Your task to perform on an android device: Open my contact list Image 0: 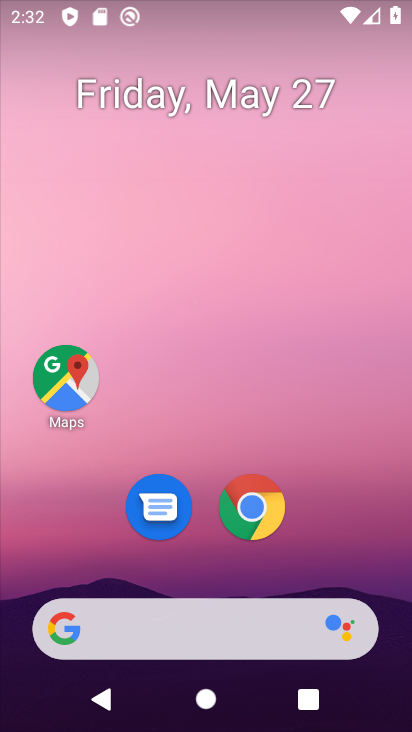
Step 0: drag from (369, 560) to (327, 136)
Your task to perform on an android device: Open my contact list Image 1: 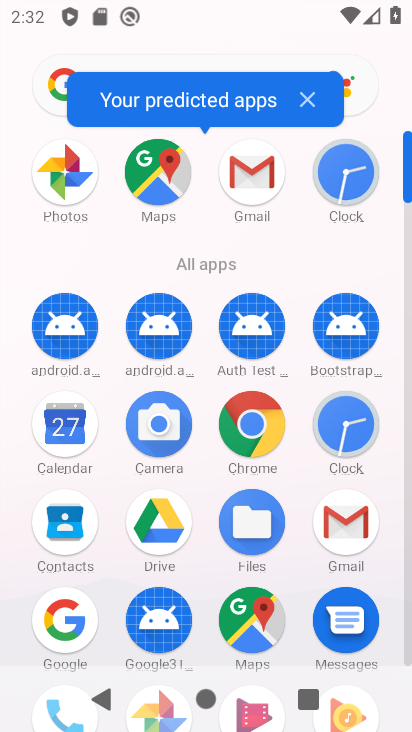
Step 1: drag from (293, 611) to (282, 325)
Your task to perform on an android device: Open my contact list Image 2: 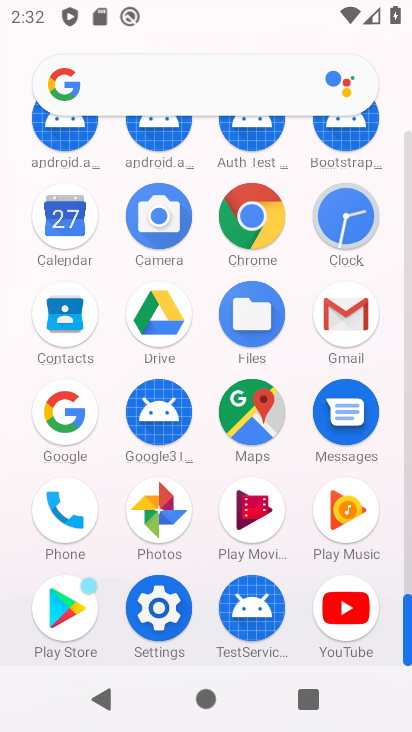
Step 2: click (67, 306)
Your task to perform on an android device: Open my contact list Image 3: 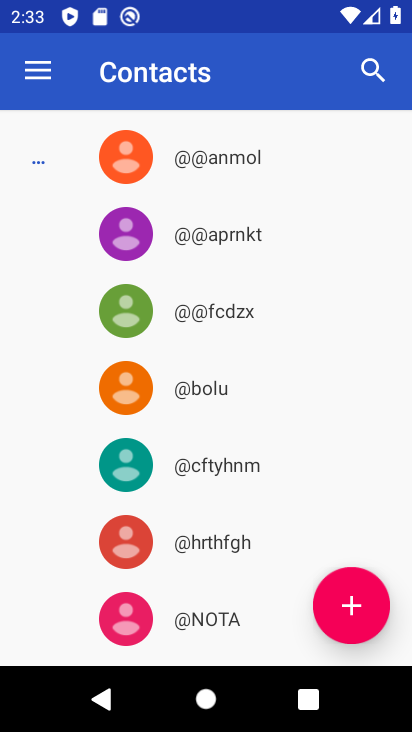
Step 3: task complete